Your task to perform on an android device: turn on bluetooth scan Image 0: 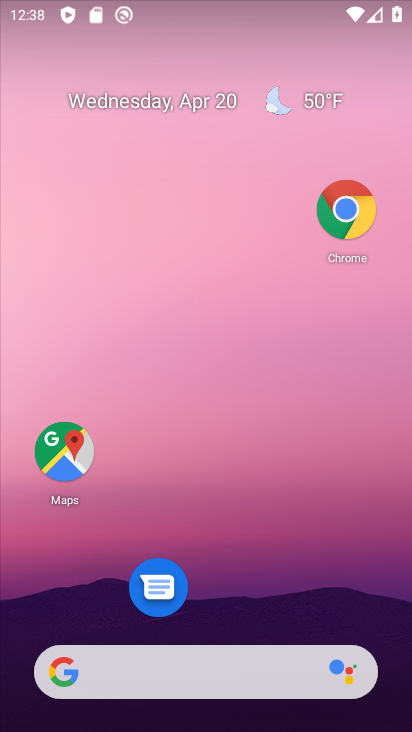
Step 0: drag from (235, 572) to (374, 4)
Your task to perform on an android device: turn on bluetooth scan Image 1: 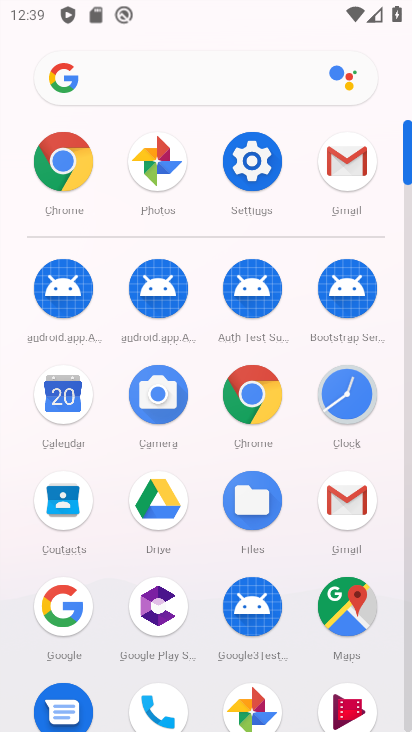
Step 1: click (245, 174)
Your task to perform on an android device: turn on bluetooth scan Image 2: 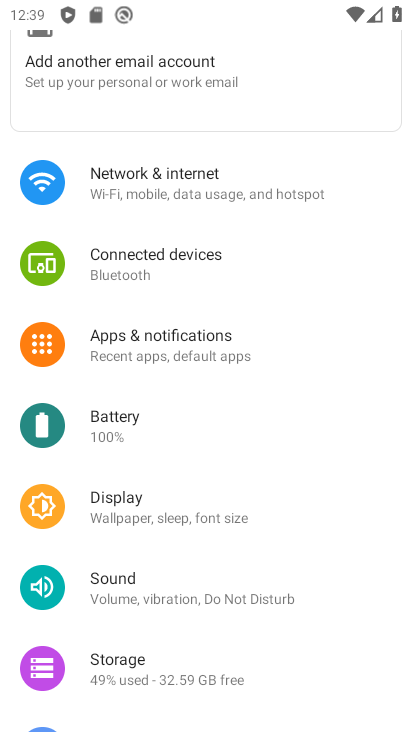
Step 2: drag from (138, 631) to (210, 221)
Your task to perform on an android device: turn on bluetooth scan Image 3: 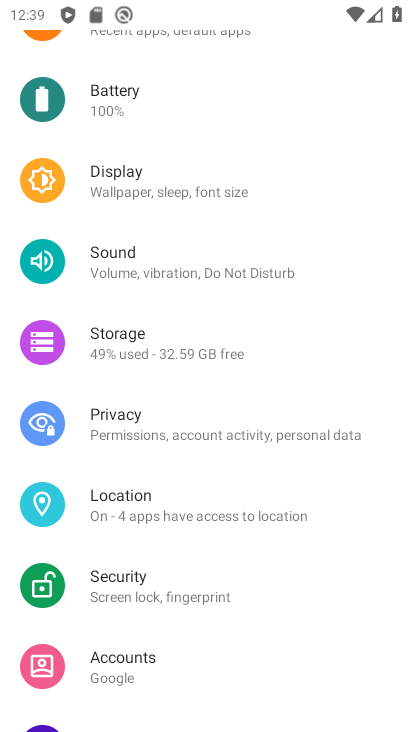
Step 3: click (138, 511)
Your task to perform on an android device: turn on bluetooth scan Image 4: 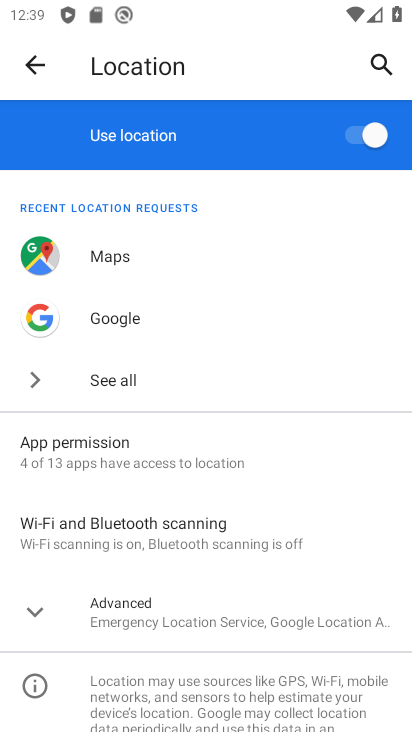
Step 4: click (128, 526)
Your task to perform on an android device: turn on bluetooth scan Image 5: 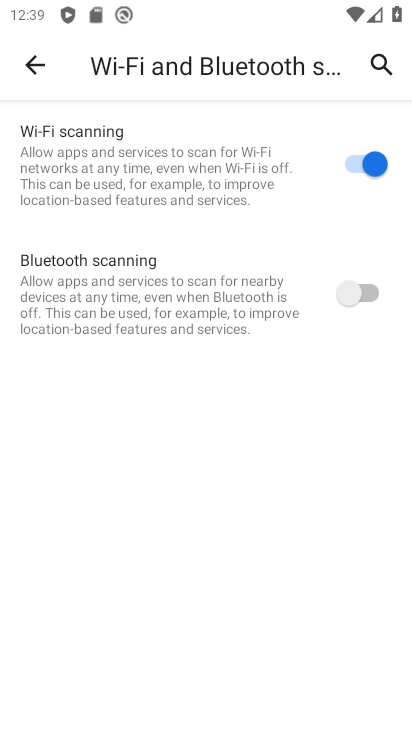
Step 5: click (371, 299)
Your task to perform on an android device: turn on bluetooth scan Image 6: 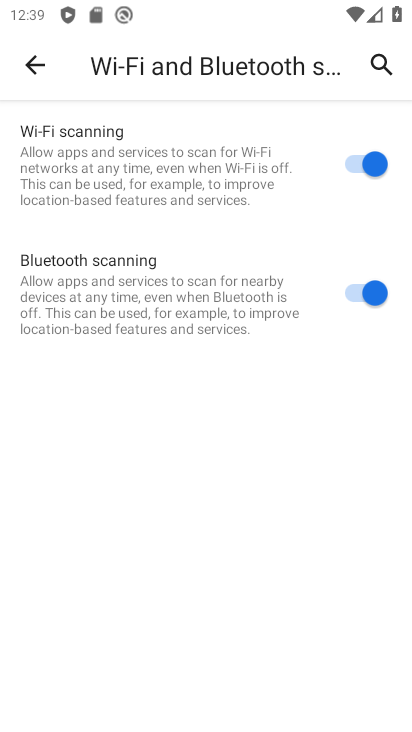
Step 6: task complete